Your task to perform on an android device: install app "Speedtest by Ookla" Image 0: 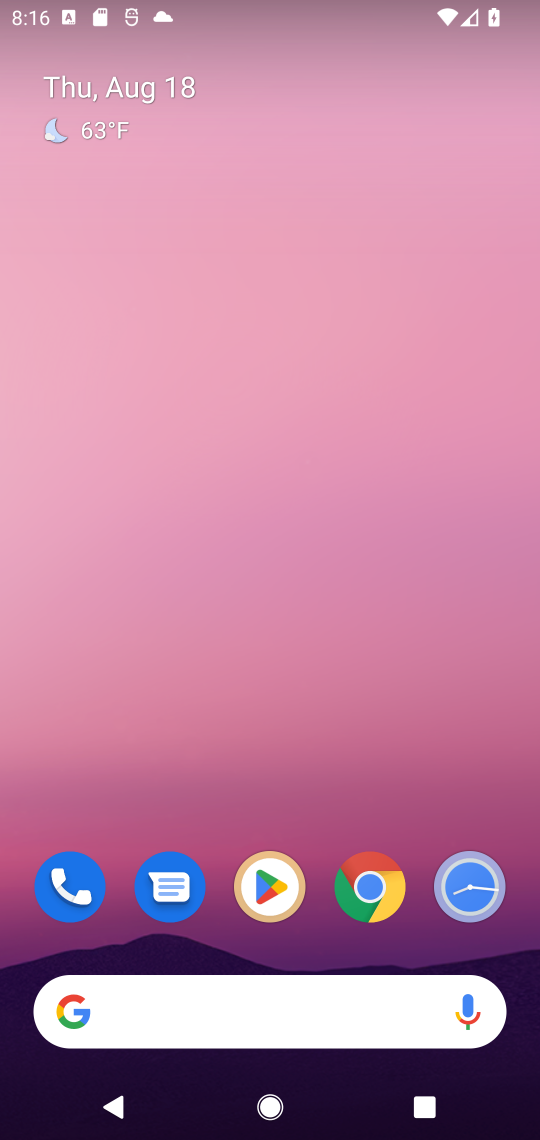
Step 0: click (288, 884)
Your task to perform on an android device: install app "Speedtest by Ookla" Image 1: 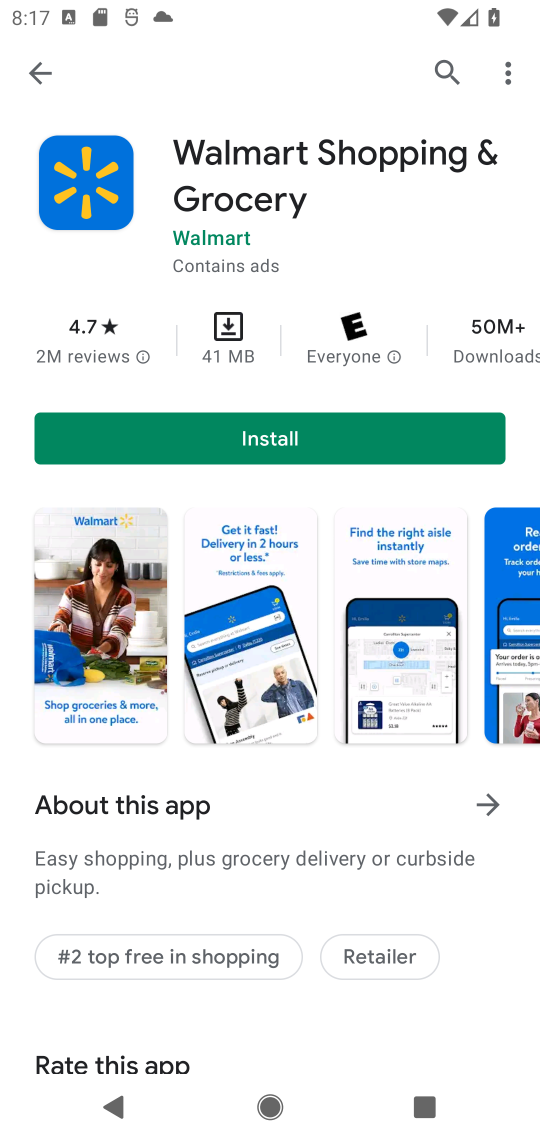
Step 1: click (437, 63)
Your task to perform on an android device: install app "Speedtest by Ookla" Image 2: 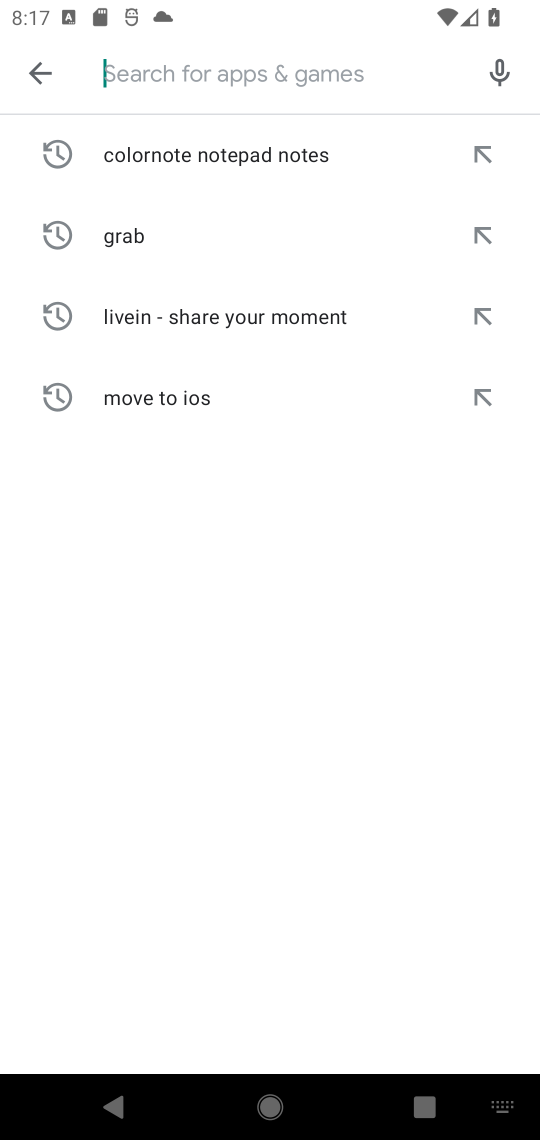
Step 2: type "Speedtest by Ookla"
Your task to perform on an android device: install app "Speedtest by Ookla" Image 3: 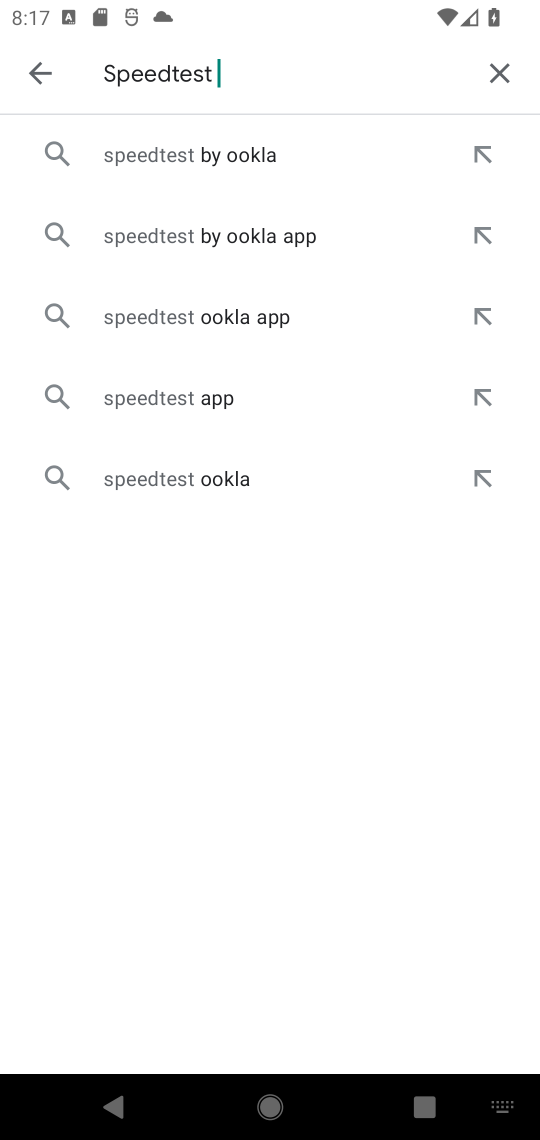
Step 3: type ""
Your task to perform on an android device: install app "Speedtest by Ookla" Image 4: 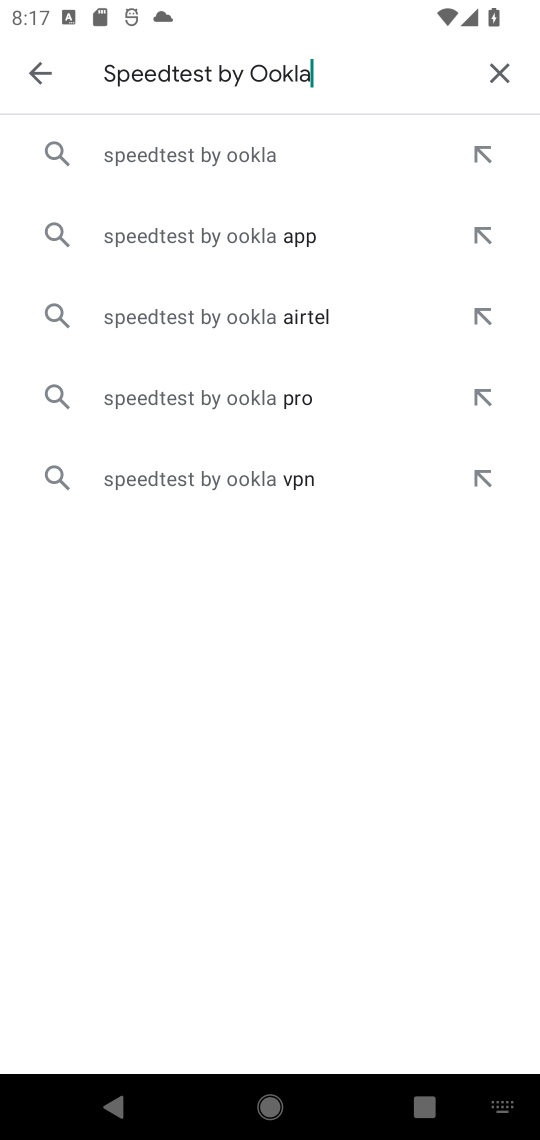
Step 4: click (176, 154)
Your task to perform on an android device: install app "Speedtest by Ookla" Image 5: 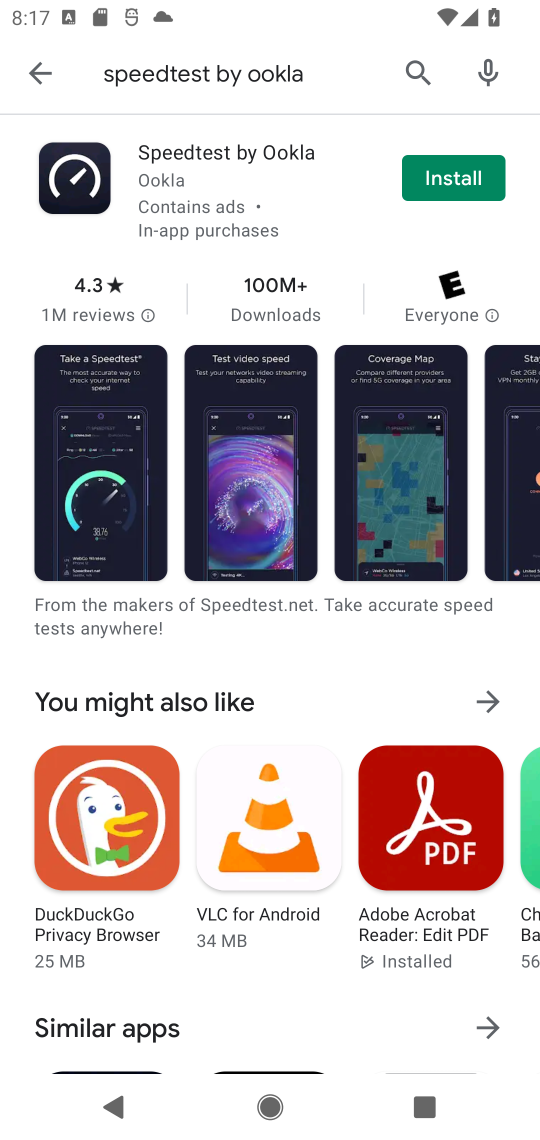
Step 5: click (448, 174)
Your task to perform on an android device: install app "Speedtest by Ookla" Image 6: 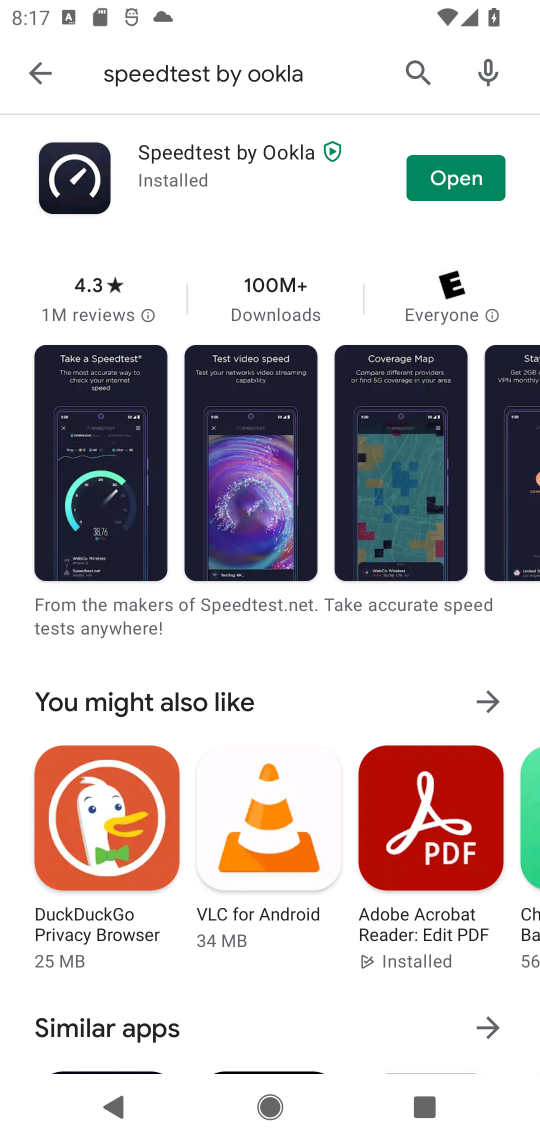
Step 6: task complete